Your task to perform on an android device: Do I have any events tomorrow? Image 0: 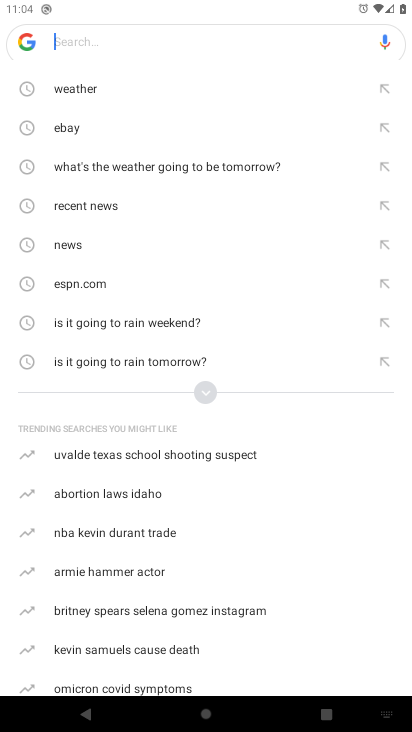
Step 0: press home button
Your task to perform on an android device: Do I have any events tomorrow? Image 1: 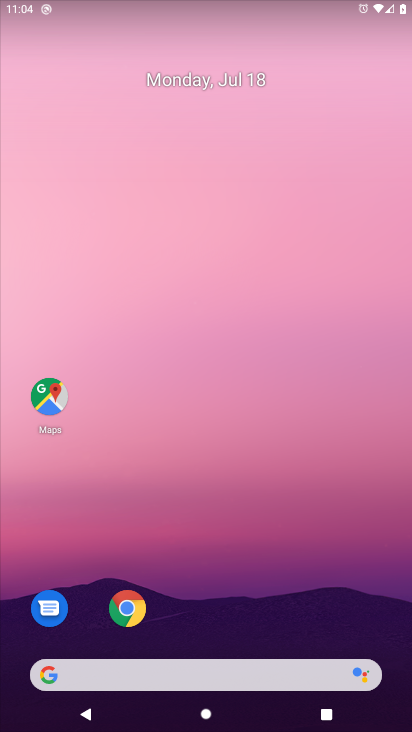
Step 1: drag from (35, 700) to (256, 158)
Your task to perform on an android device: Do I have any events tomorrow? Image 2: 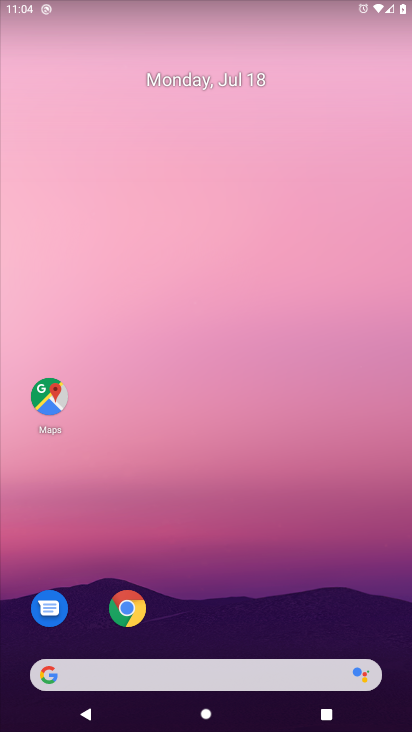
Step 2: drag from (23, 681) to (136, 295)
Your task to perform on an android device: Do I have any events tomorrow? Image 3: 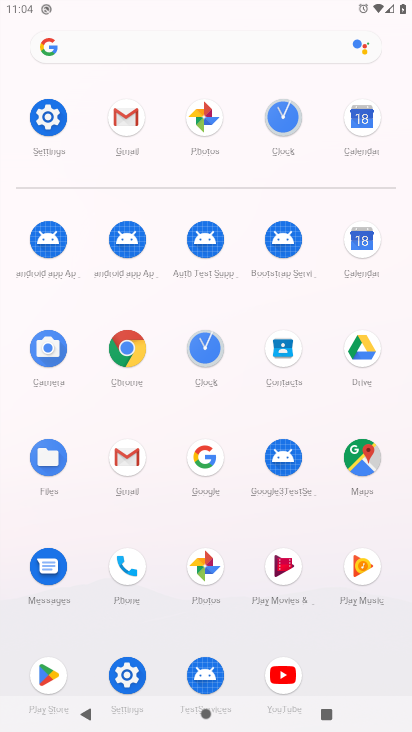
Step 3: click (365, 248)
Your task to perform on an android device: Do I have any events tomorrow? Image 4: 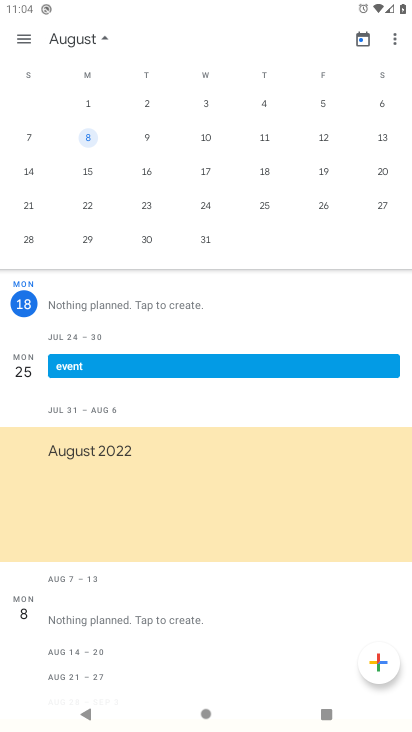
Step 4: task complete